Your task to perform on an android device: Search for Italian restaurants on Maps Image 0: 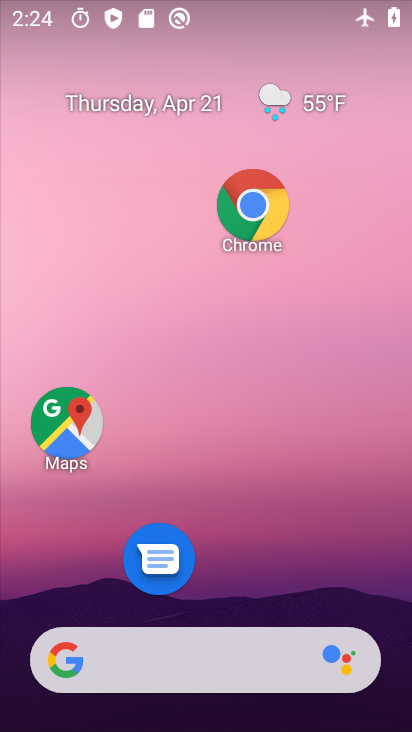
Step 0: click (63, 448)
Your task to perform on an android device: Search for Italian restaurants on Maps Image 1: 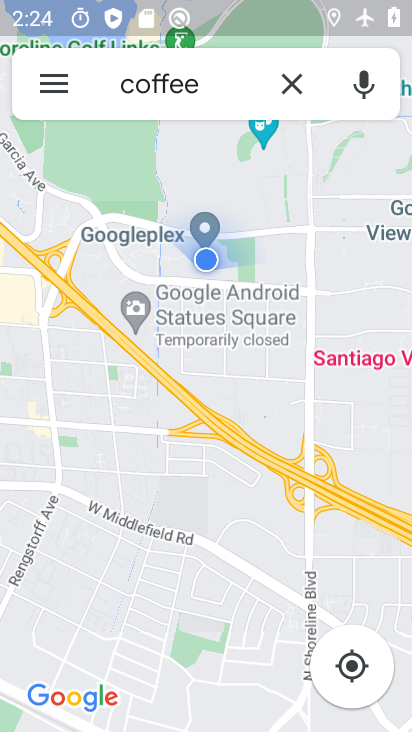
Step 1: click (302, 81)
Your task to perform on an android device: Search for Italian restaurants on Maps Image 2: 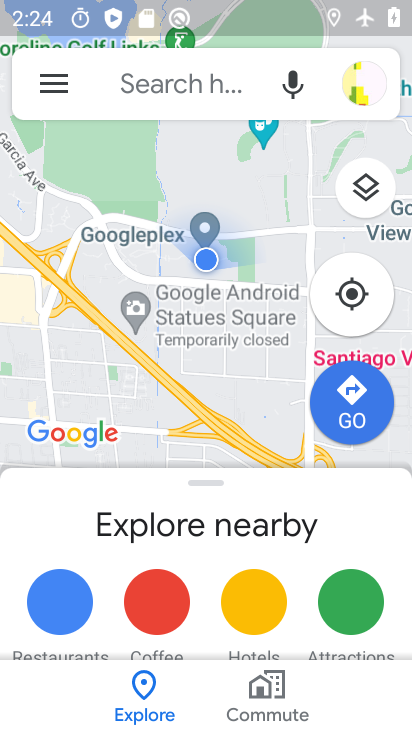
Step 2: click (170, 91)
Your task to perform on an android device: Search for Italian restaurants on Maps Image 3: 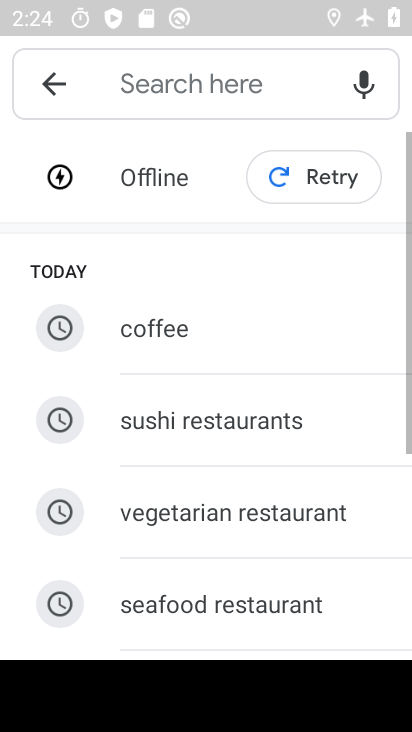
Step 3: drag from (195, 534) to (158, 253)
Your task to perform on an android device: Search for Italian restaurants on Maps Image 4: 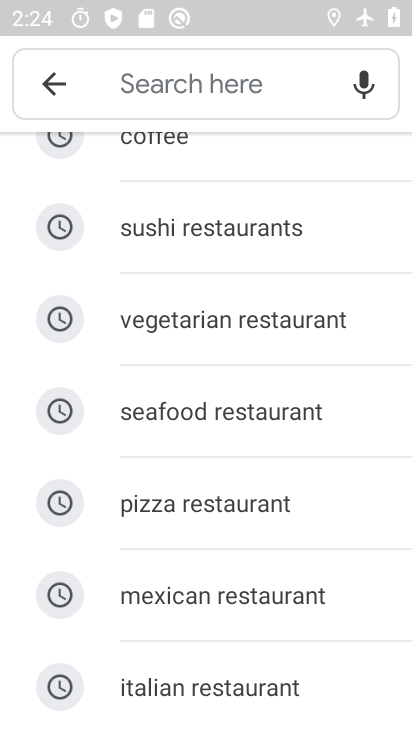
Step 4: click (170, 664)
Your task to perform on an android device: Search for Italian restaurants on Maps Image 5: 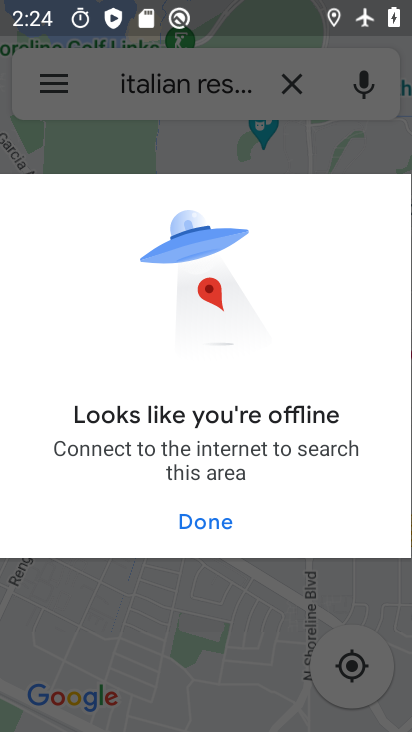
Step 5: task complete